Your task to perform on an android device: open a bookmark in the chrome app Image 0: 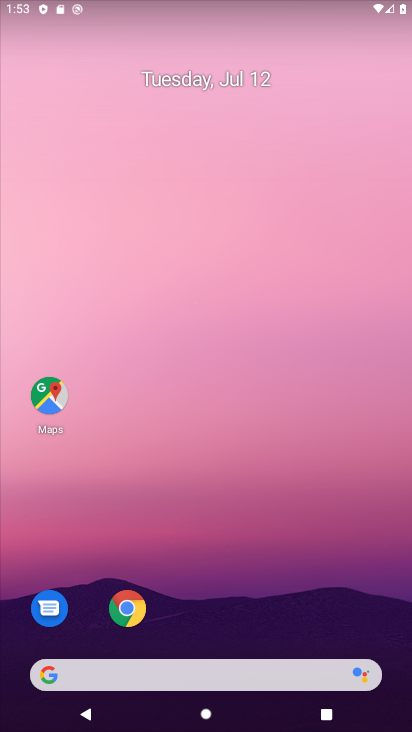
Step 0: drag from (291, 434) to (296, 24)
Your task to perform on an android device: open a bookmark in the chrome app Image 1: 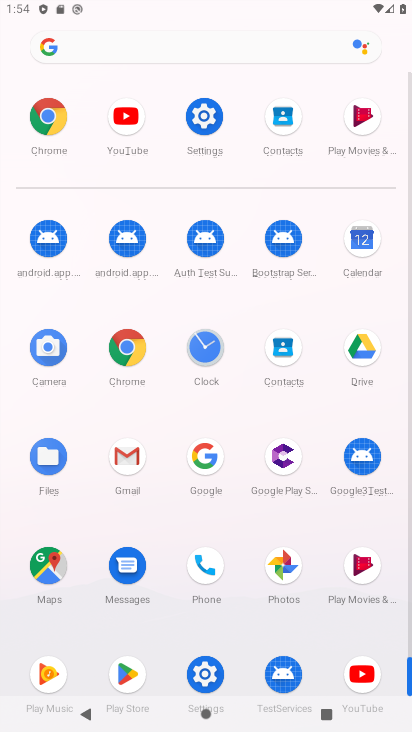
Step 1: click (125, 344)
Your task to perform on an android device: open a bookmark in the chrome app Image 2: 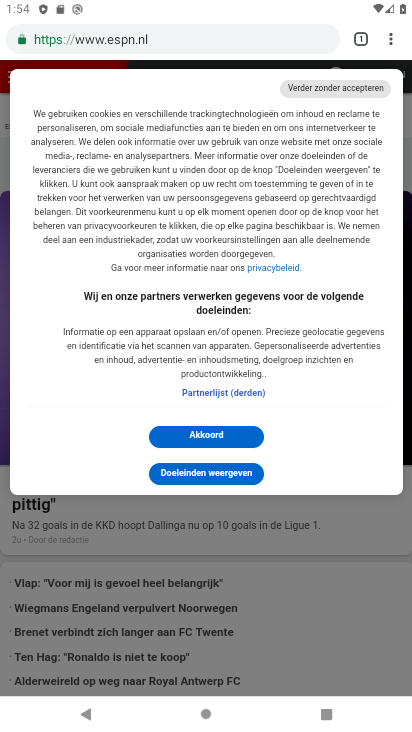
Step 2: drag from (395, 30) to (267, 206)
Your task to perform on an android device: open a bookmark in the chrome app Image 3: 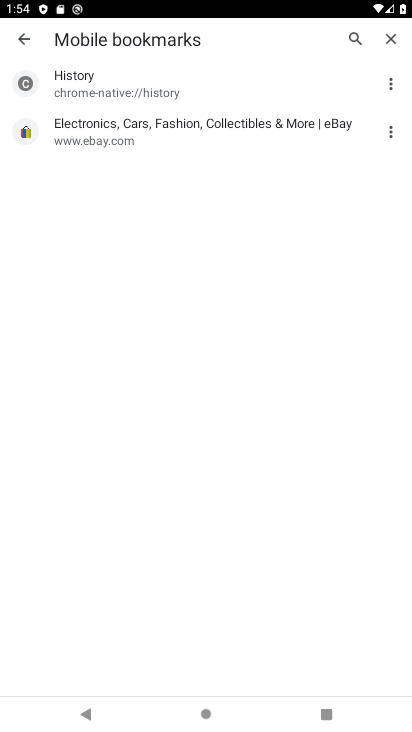
Step 3: click (127, 121)
Your task to perform on an android device: open a bookmark in the chrome app Image 4: 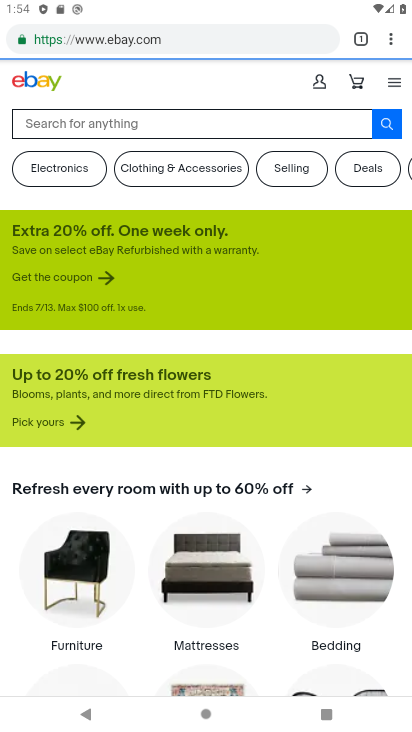
Step 4: task complete